Your task to perform on an android device: clear all cookies in the chrome app Image 0: 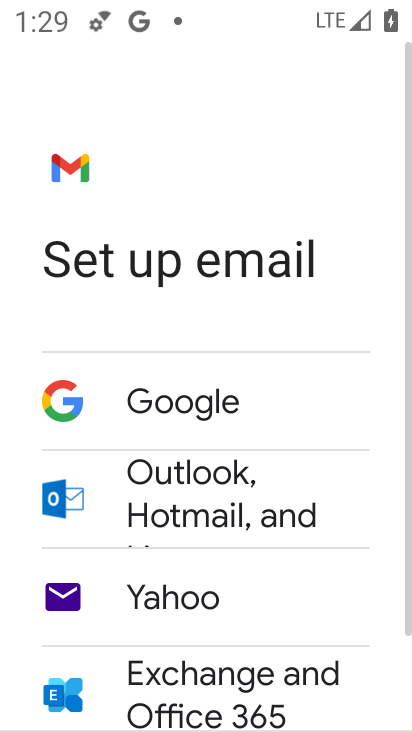
Step 0: press back button
Your task to perform on an android device: clear all cookies in the chrome app Image 1: 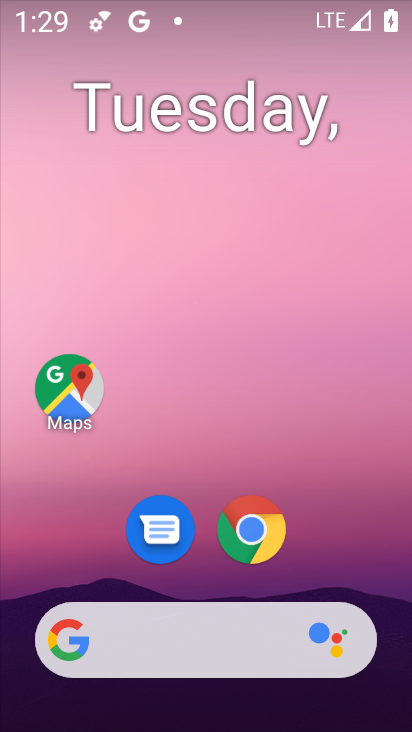
Step 1: click (249, 519)
Your task to perform on an android device: clear all cookies in the chrome app Image 2: 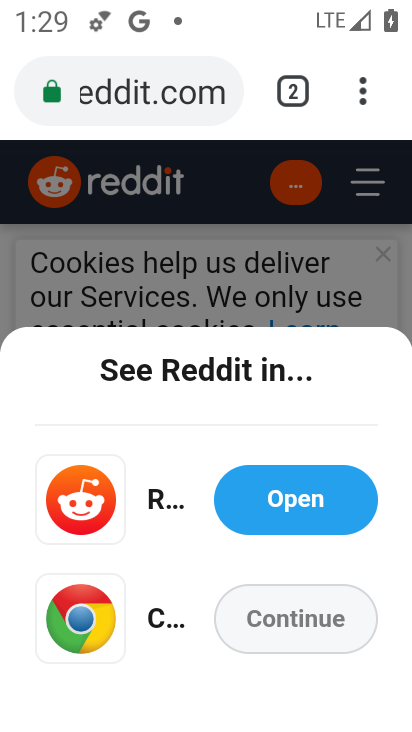
Step 2: click (364, 87)
Your task to perform on an android device: clear all cookies in the chrome app Image 3: 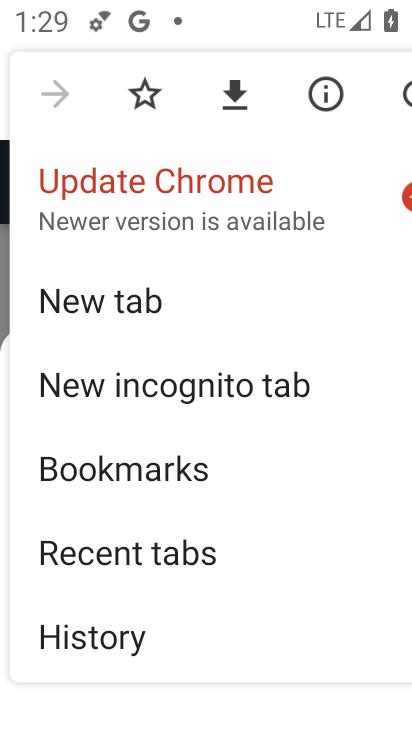
Step 3: click (90, 631)
Your task to perform on an android device: clear all cookies in the chrome app Image 4: 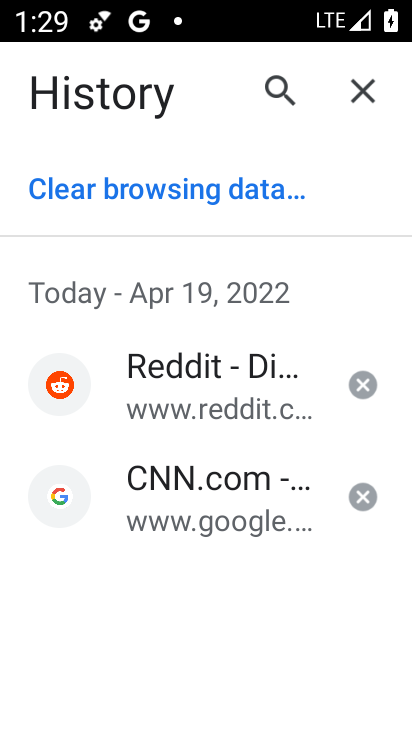
Step 4: click (195, 190)
Your task to perform on an android device: clear all cookies in the chrome app Image 5: 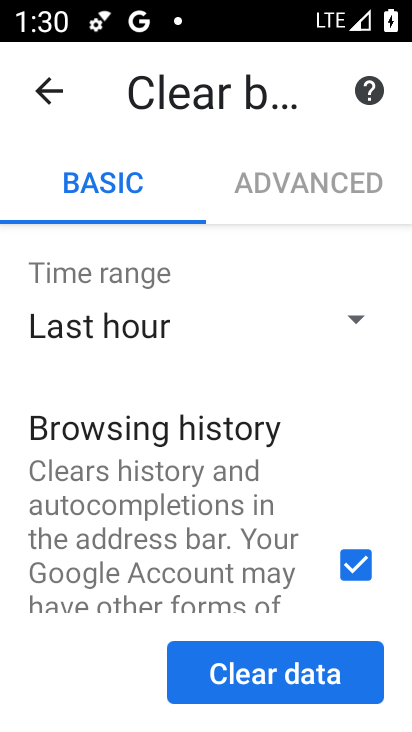
Step 5: drag from (319, 592) to (284, 258)
Your task to perform on an android device: clear all cookies in the chrome app Image 6: 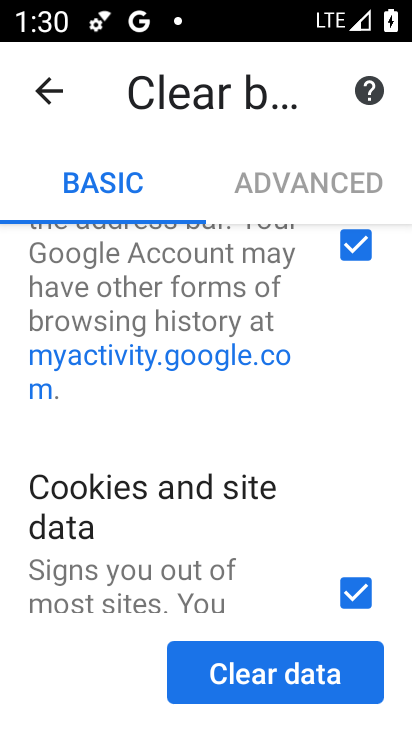
Step 6: drag from (269, 572) to (275, 360)
Your task to perform on an android device: clear all cookies in the chrome app Image 7: 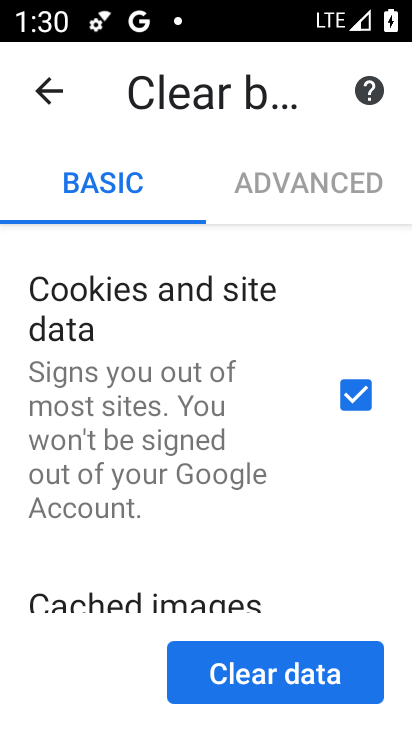
Step 7: click (260, 677)
Your task to perform on an android device: clear all cookies in the chrome app Image 8: 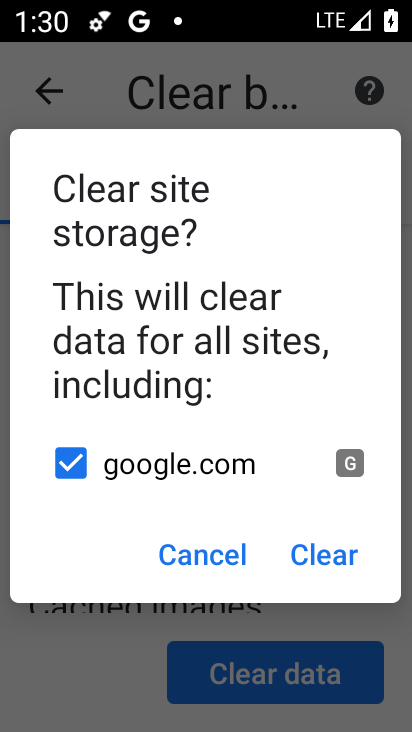
Step 8: click (321, 542)
Your task to perform on an android device: clear all cookies in the chrome app Image 9: 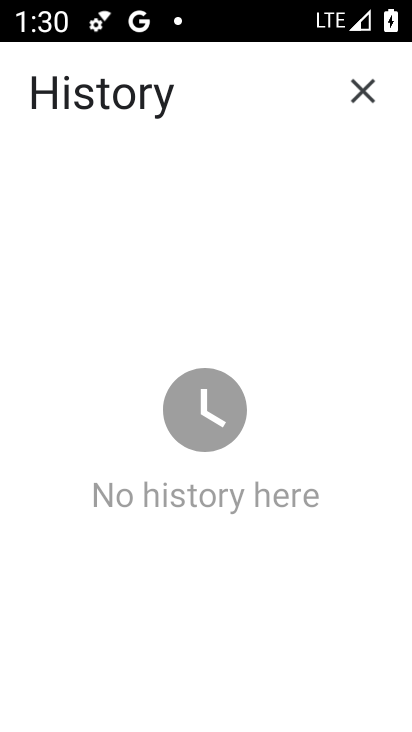
Step 9: task complete